Your task to perform on an android device: move an email to a new category in the gmail app Image 0: 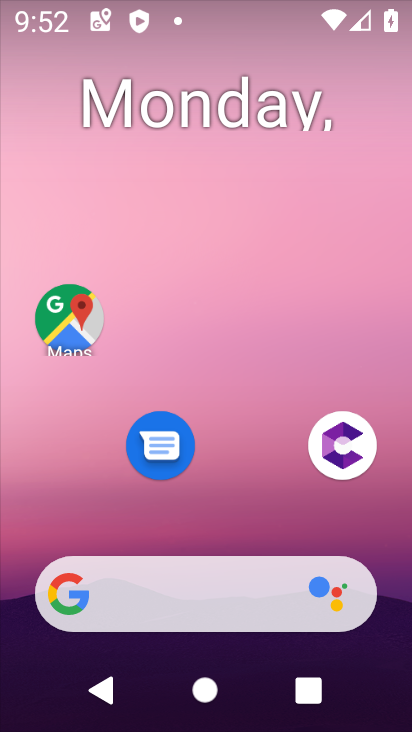
Step 0: press home button
Your task to perform on an android device: move an email to a new category in the gmail app Image 1: 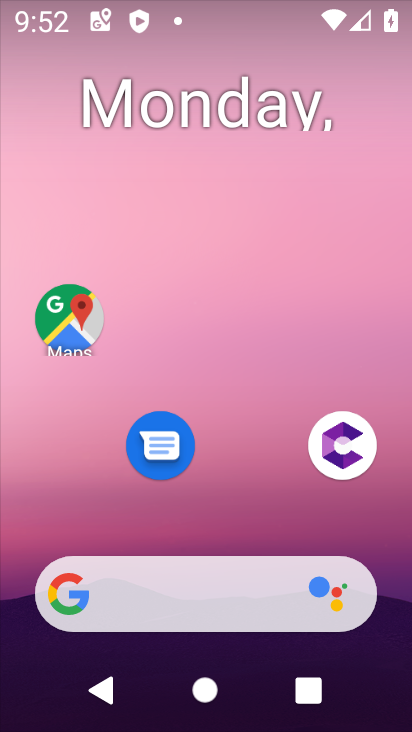
Step 1: drag from (251, 505) to (255, 0)
Your task to perform on an android device: move an email to a new category in the gmail app Image 2: 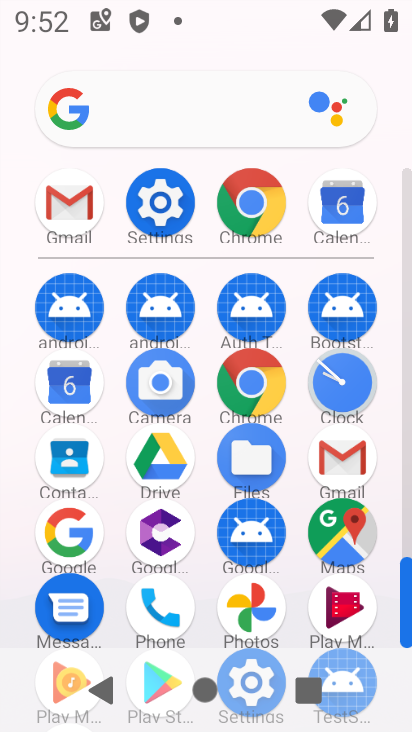
Step 2: click (76, 201)
Your task to perform on an android device: move an email to a new category in the gmail app Image 3: 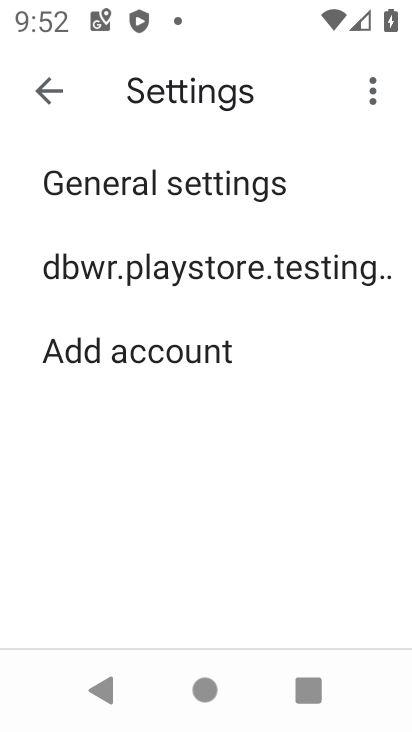
Step 3: click (45, 92)
Your task to perform on an android device: move an email to a new category in the gmail app Image 4: 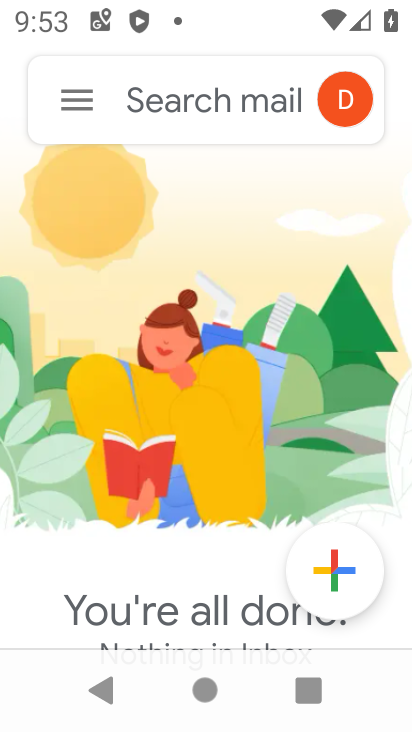
Step 4: click (82, 105)
Your task to perform on an android device: move an email to a new category in the gmail app Image 5: 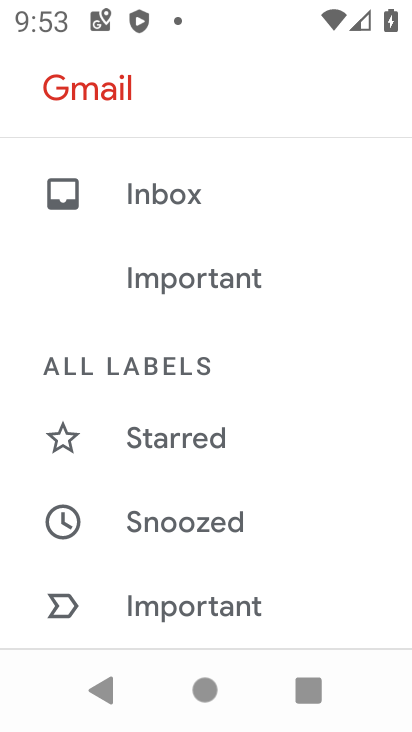
Step 5: drag from (351, 567) to (299, 181)
Your task to perform on an android device: move an email to a new category in the gmail app Image 6: 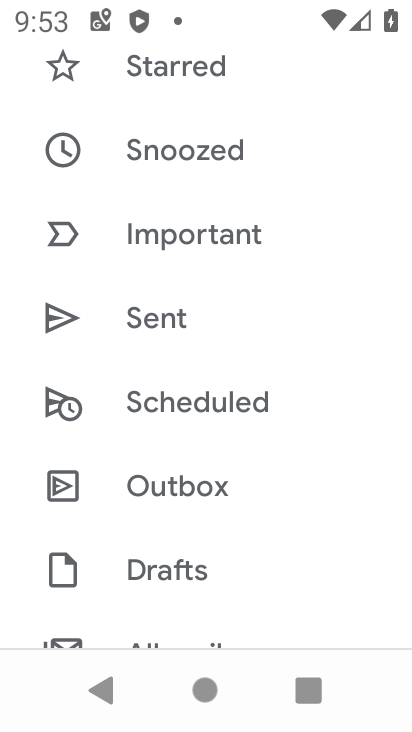
Step 6: drag from (325, 599) to (284, 196)
Your task to perform on an android device: move an email to a new category in the gmail app Image 7: 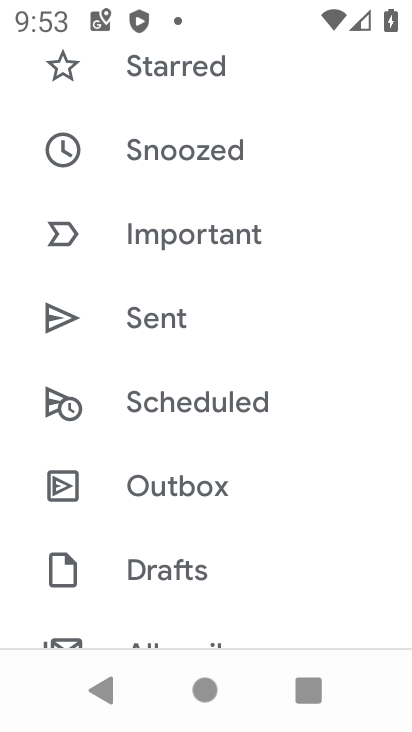
Step 7: drag from (305, 559) to (315, 211)
Your task to perform on an android device: move an email to a new category in the gmail app Image 8: 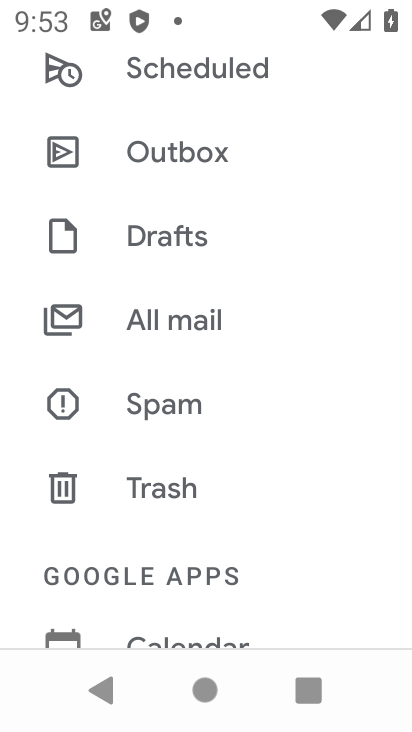
Step 8: click (173, 324)
Your task to perform on an android device: move an email to a new category in the gmail app Image 9: 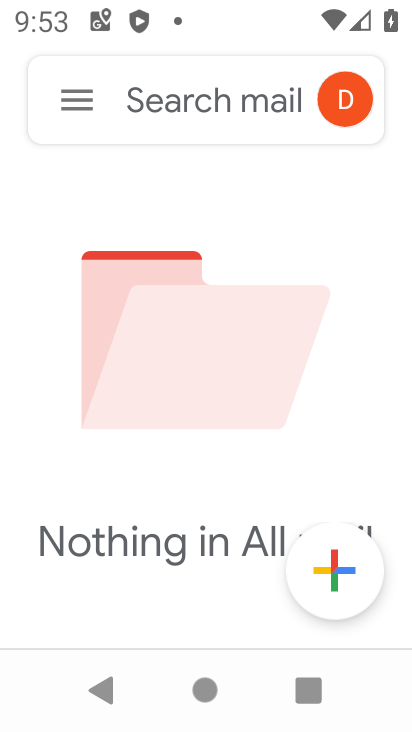
Step 9: task complete